Your task to perform on an android device: What is the recent news? Image 0: 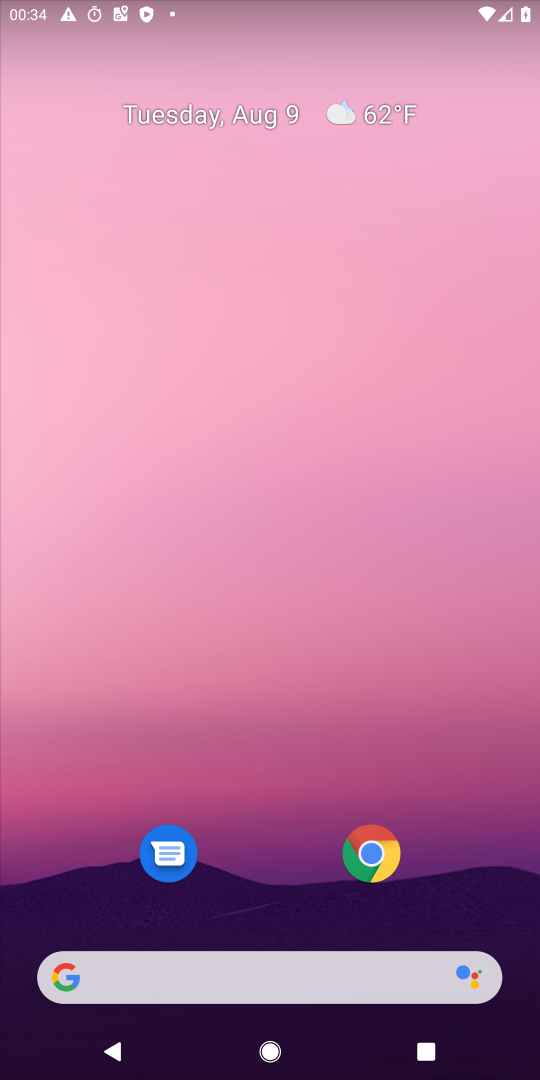
Step 0: press home button
Your task to perform on an android device: What is the recent news? Image 1: 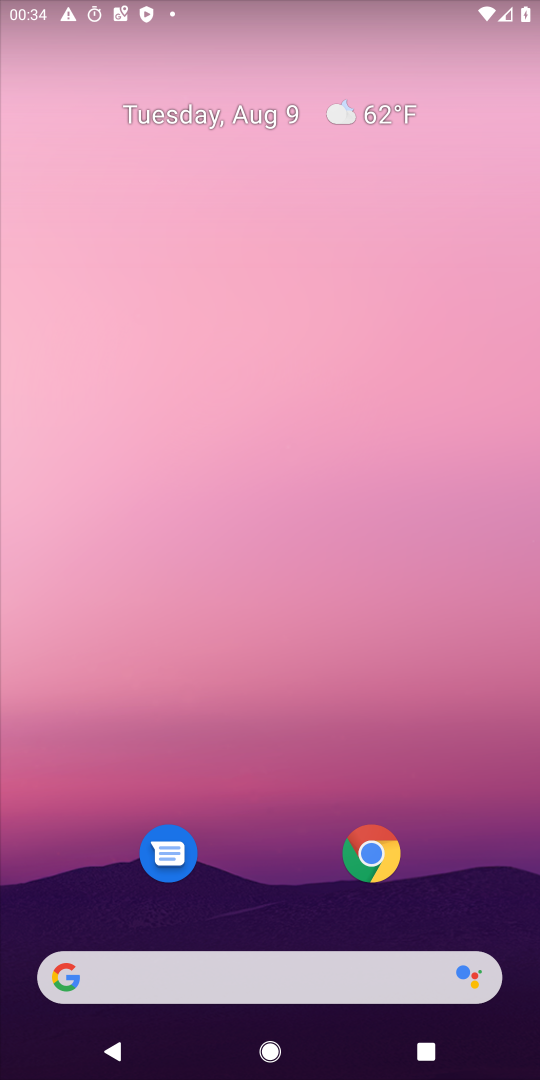
Step 1: click (257, 971)
Your task to perform on an android device: What is the recent news? Image 2: 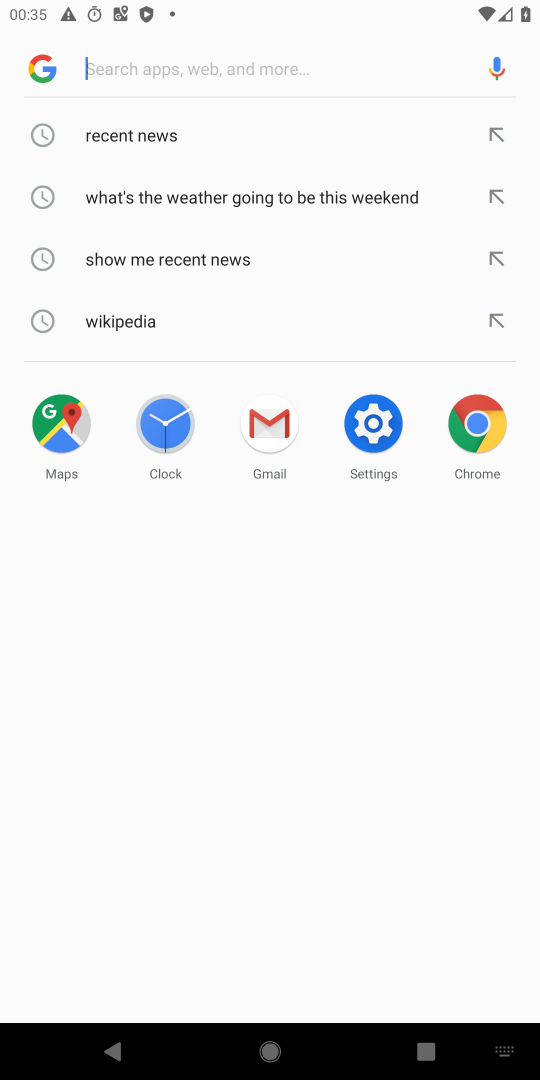
Step 2: type "what is the recent news"
Your task to perform on an android device: What is the recent news? Image 3: 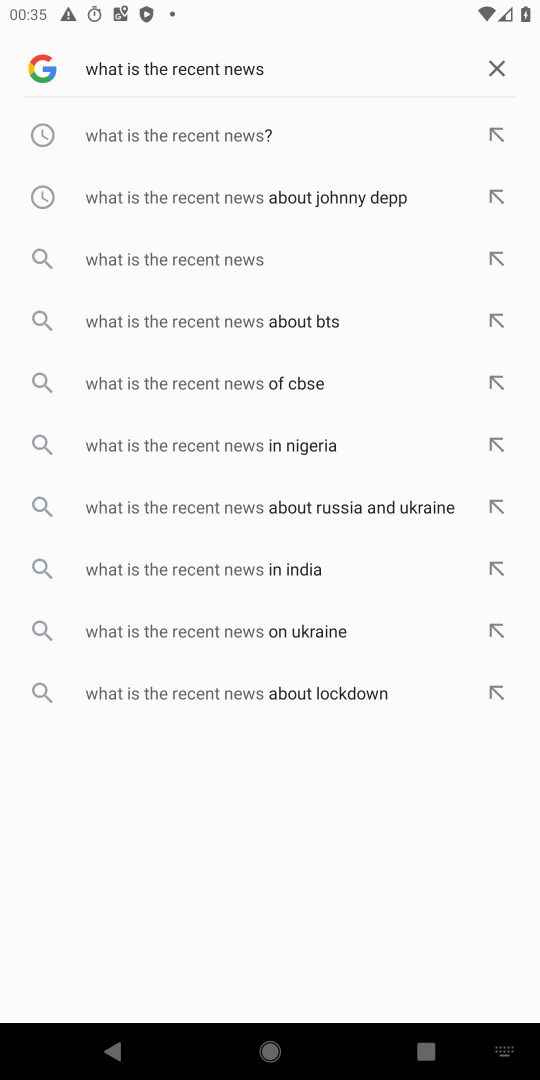
Step 3: click (242, 140)
Your task to perform on an android device: What is the recent news? Image 4: 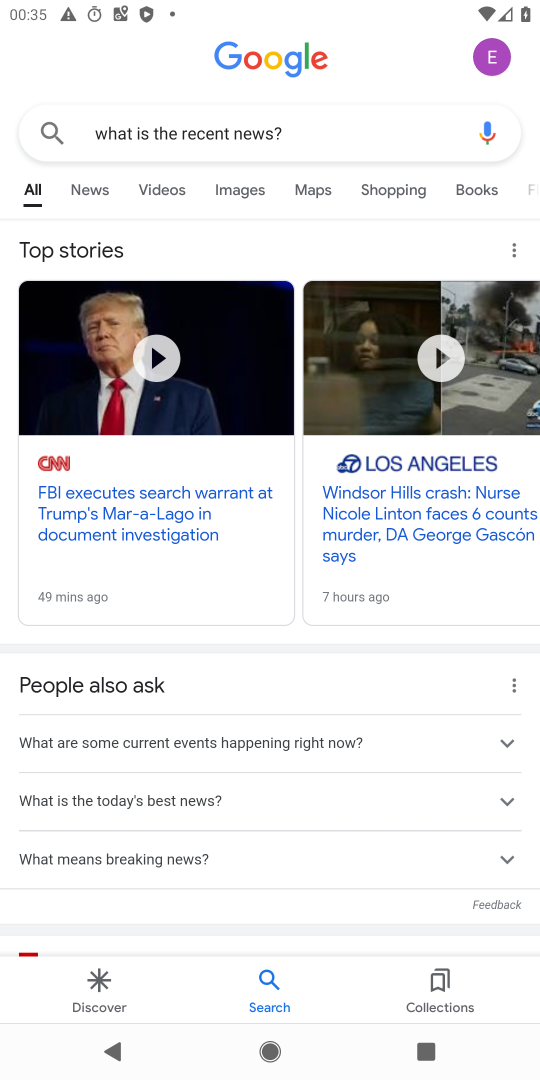
Step 4: click (79, 182)
Your task to perform on an android device: What is the recent news? Image 5: 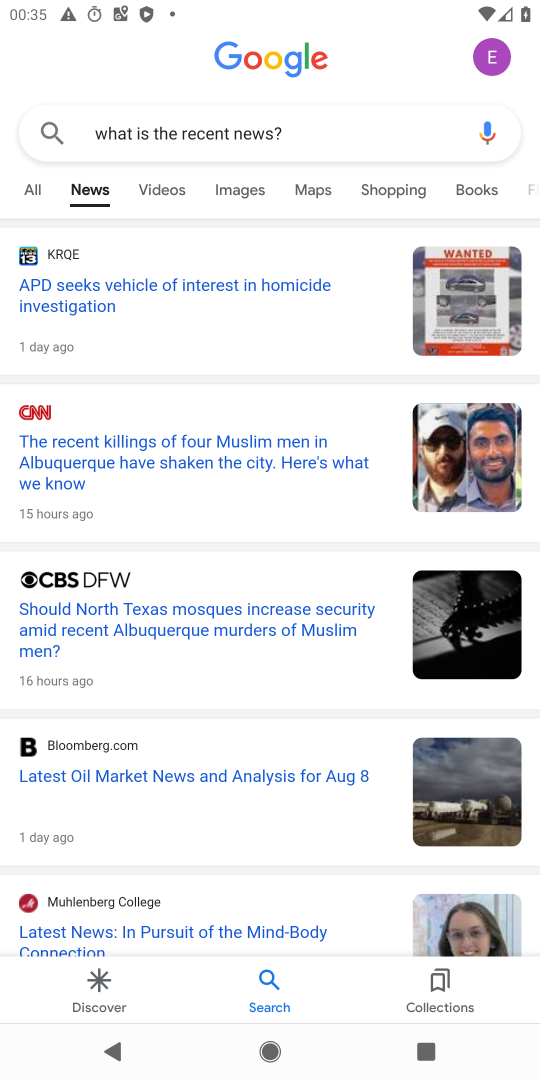
Step 5: task complete